Your task to perform on an android device: Search for Italian restaurants on Maps Image 0: 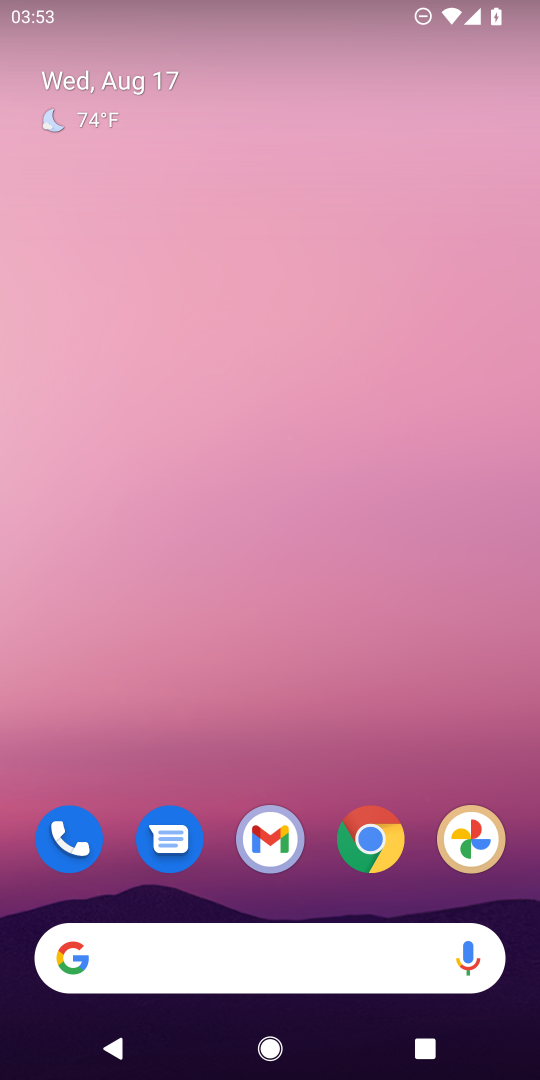
Step 0: drag from (323, 840) to (332, 124)
Your task to perform on an android device: Search for Italian restaurants on Maps Image 1: 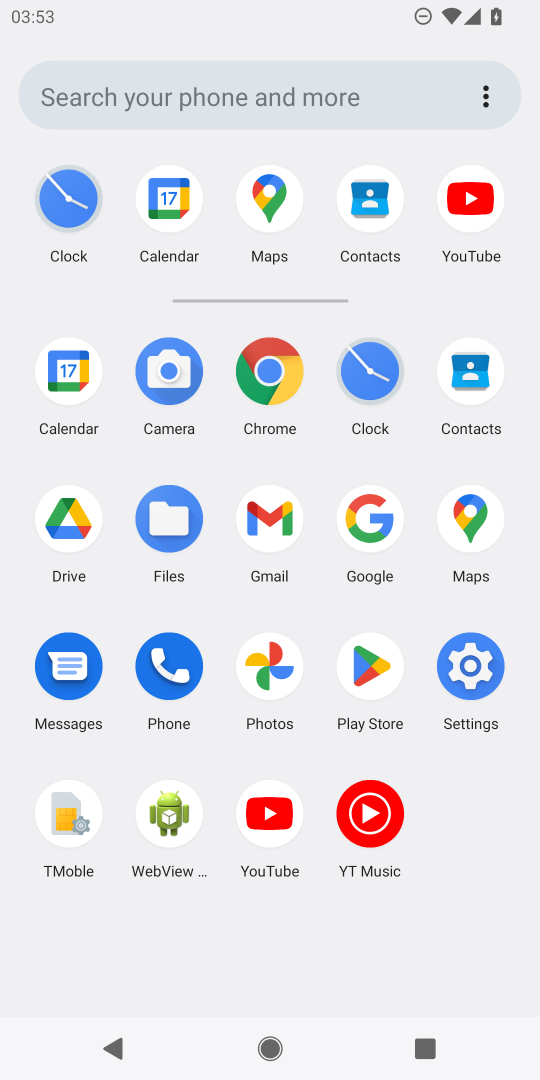
Step 1: click (470, 515)
Your task to perform on an android device: Search for Italian restaurants on Maps Image 2: 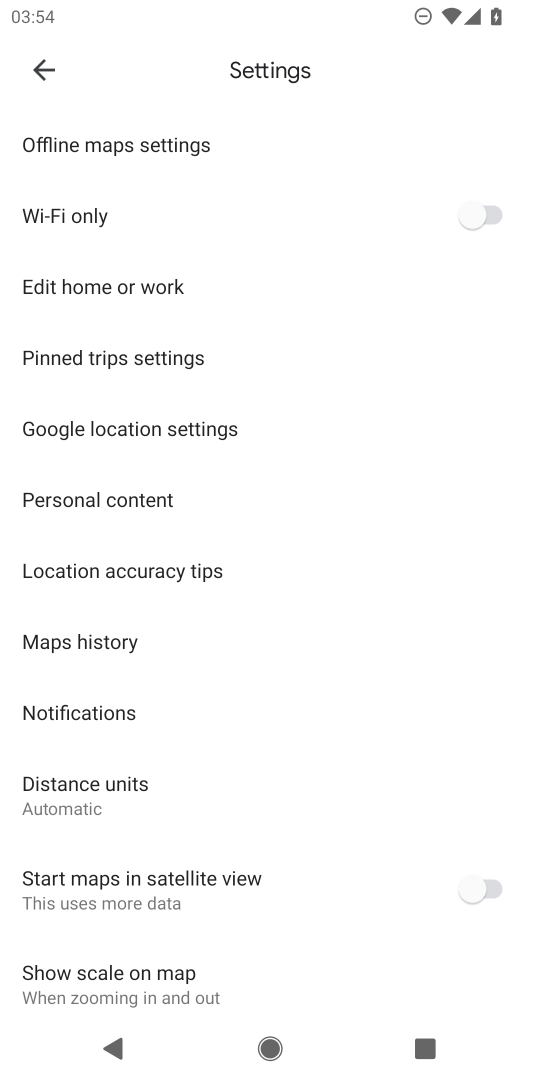
Step 2: click (42, 72)
Your task to perform on an android device: Search for Italian restaurants on Maps Image 3: 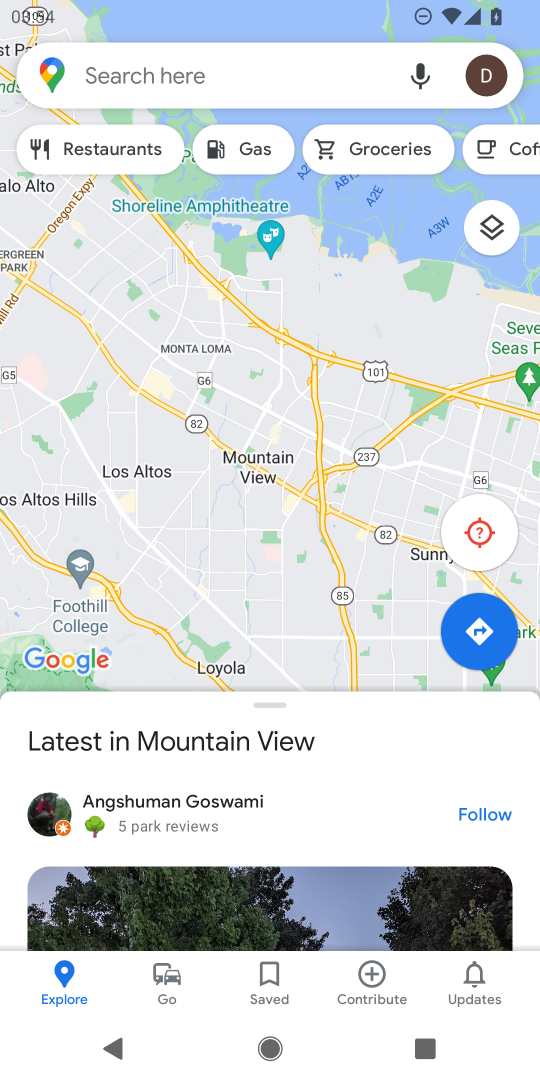
Step 3: click (173, 66)
Your task to perform on an android device: Search for Italian restaurants on Maps Image 4: 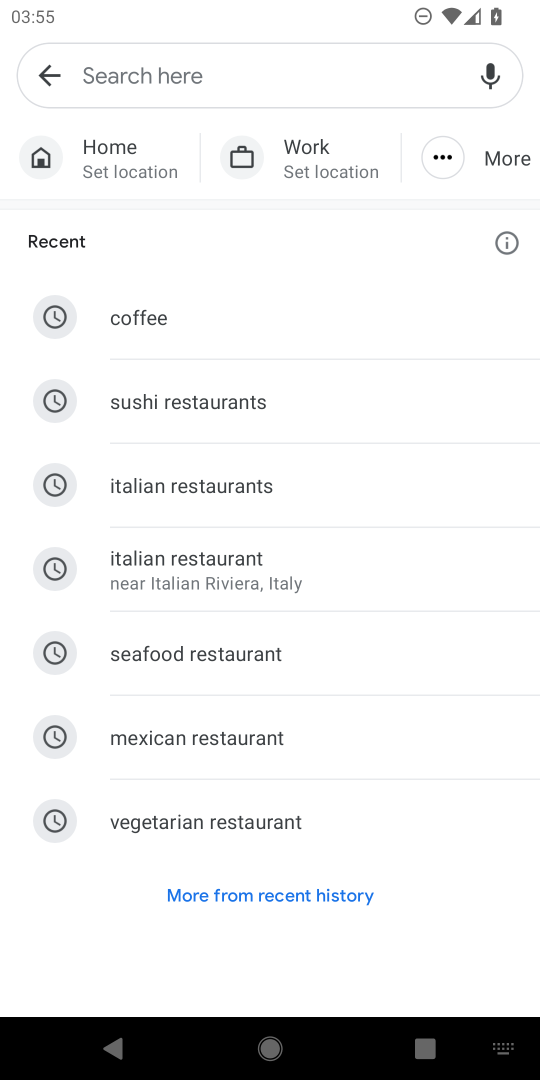
Step 4: type "Italian restaurants"
Your task to perform on an android device: Search for Italian restaurants on Maps Image 5: 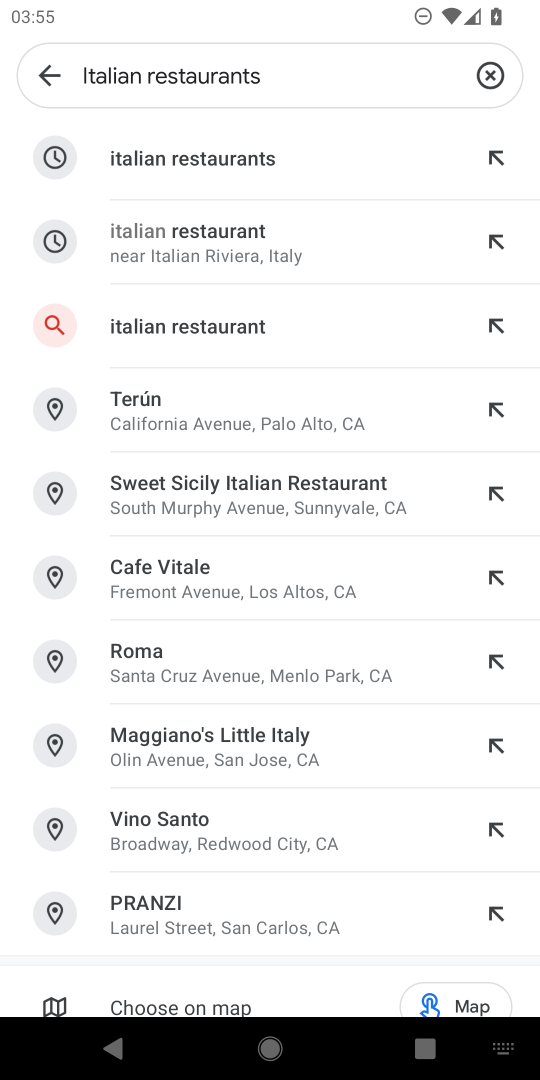
Step 5: click (200, 155)
Your task to perform on an android device: Search for Italian restaurants on Maps Image 6: 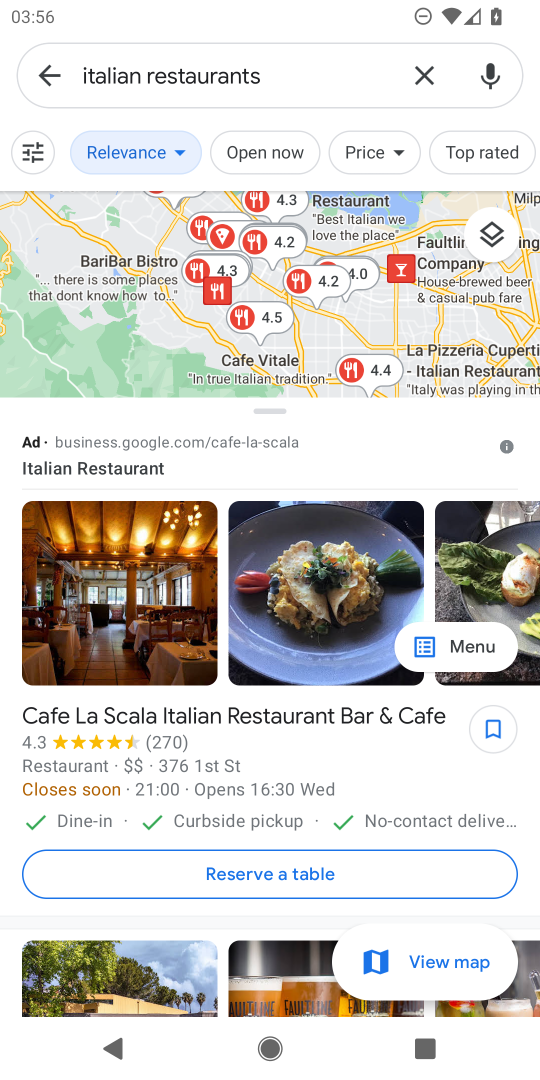
Step 6: task complete